Your task to perform on an android device: open app "The Home Depot" (install if not already installed), go to login, and select forgot password Image 0: 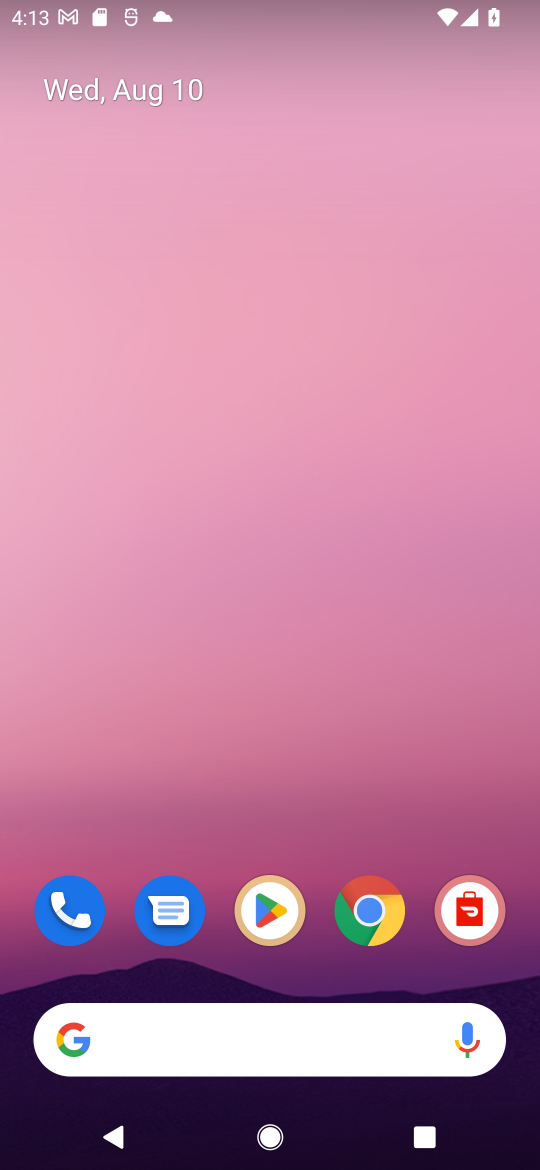
Step 0: click (256, 921)
Your task to perform on an android device: open app "The Home Depot" (install if not already installed), go to login, and select forgot password Image 1: 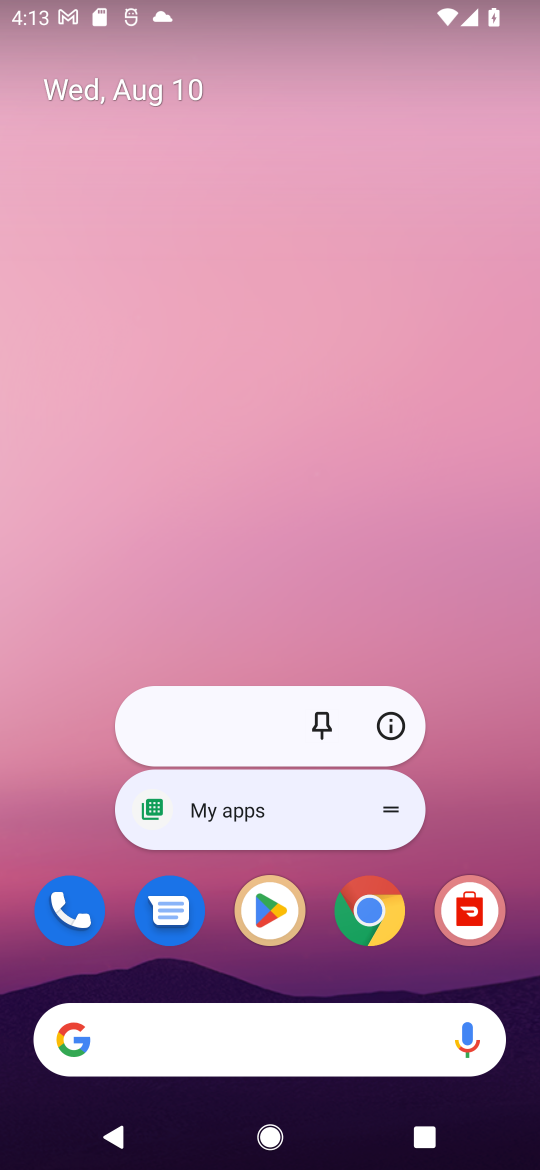
Step 1: click (256, 921)
Your task to perform on an android device: open app "The Home Depot" (install if not already installed), go to login, and select forgot password Image 2: 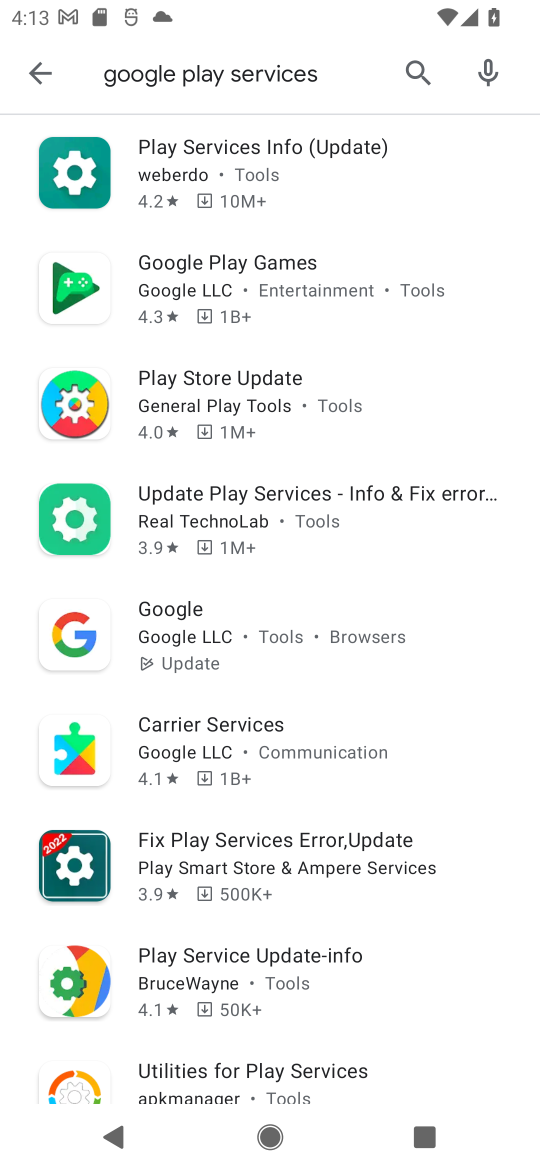
Step 2: click (419, 77)
Your task to perform on an android device: open app "The Home Depot" (install if not already installed), go to login, and select forgot password Image 3: 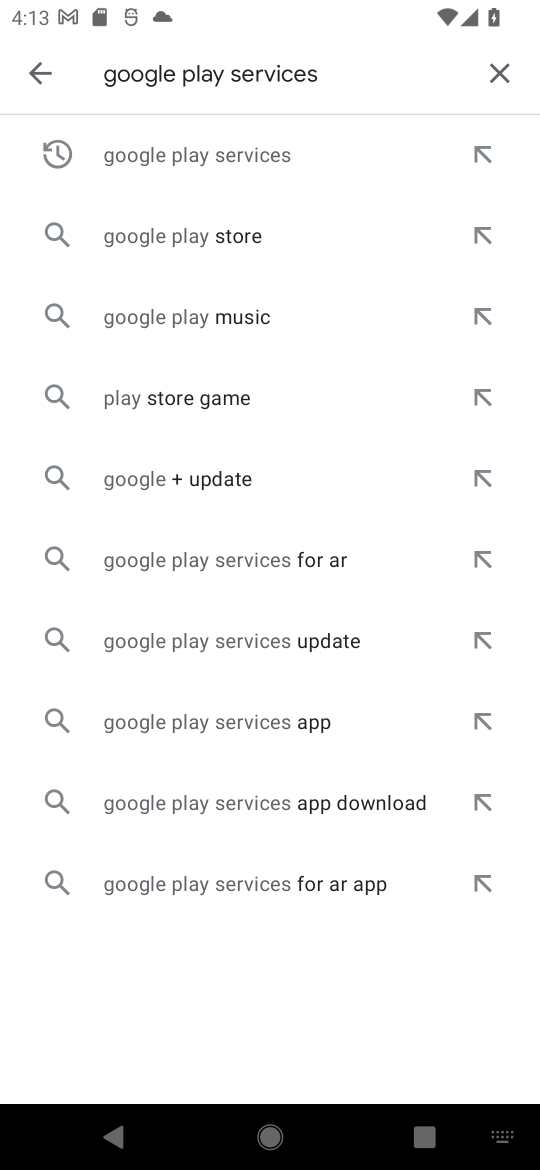
Step 3: click (493, 71)
Your task to perform on an android device: open app "The Home Depot" (install if not already installed), go to login, and select forgot password Image 4: 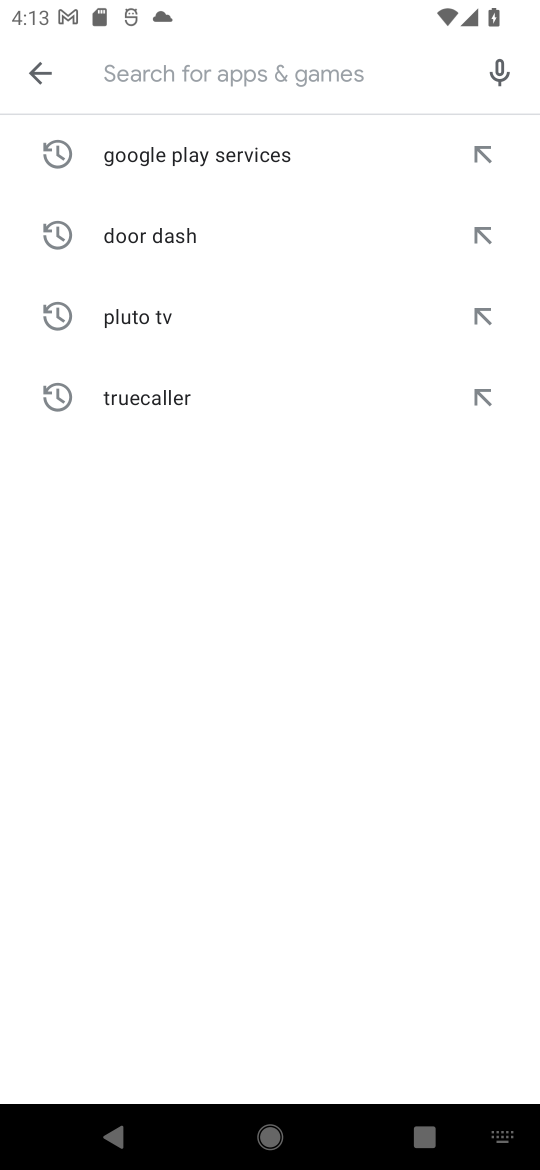
Step 4: click (269, 65)
Your task to perform on an android device: open app "The Home Depot" (install if not already installed), go to login, and select forgot password Image 5: 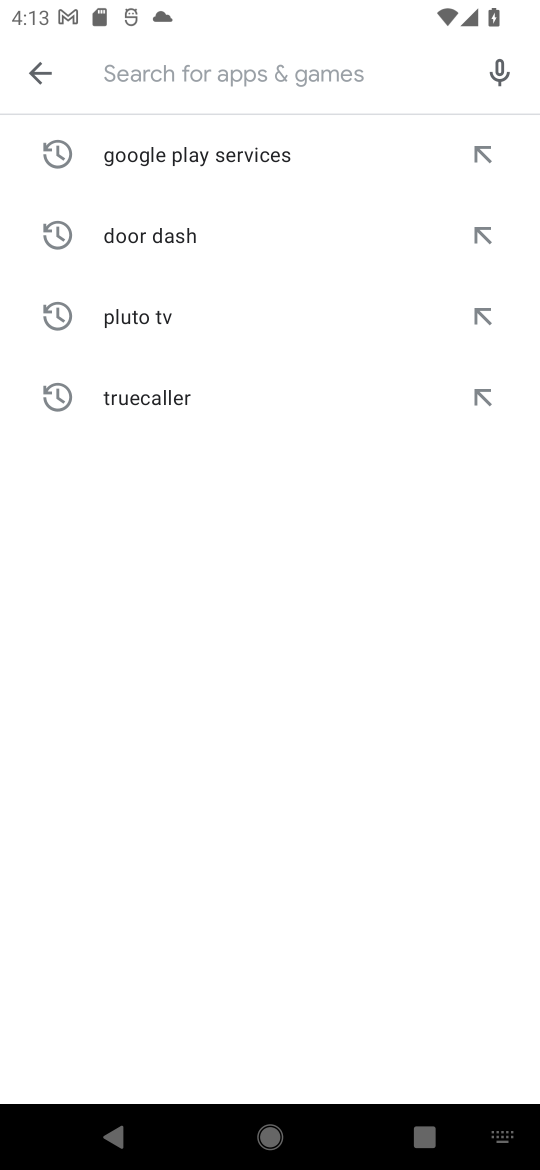
Step 5: type "the home depot"
Your task to perform on an android device: open app "The Home Depot" (install if not already installed), go to login, and select forgot password Image 6: 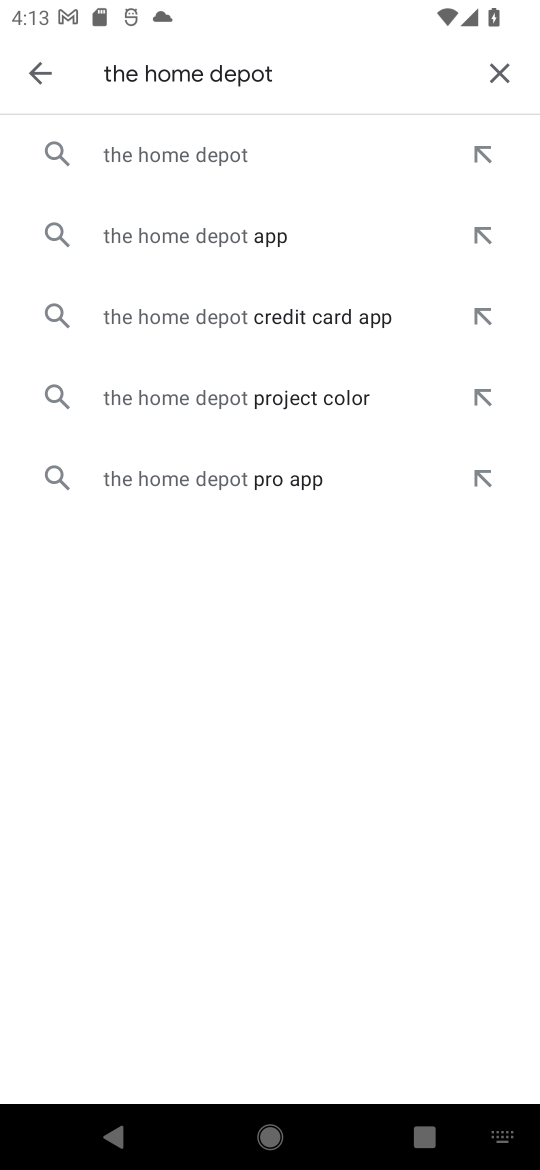
Step 6: click (248, 149)
Your task to perform on an android device: open app "The Home Depot" (install if not already installed), go to login, and select forgot password Image 7: 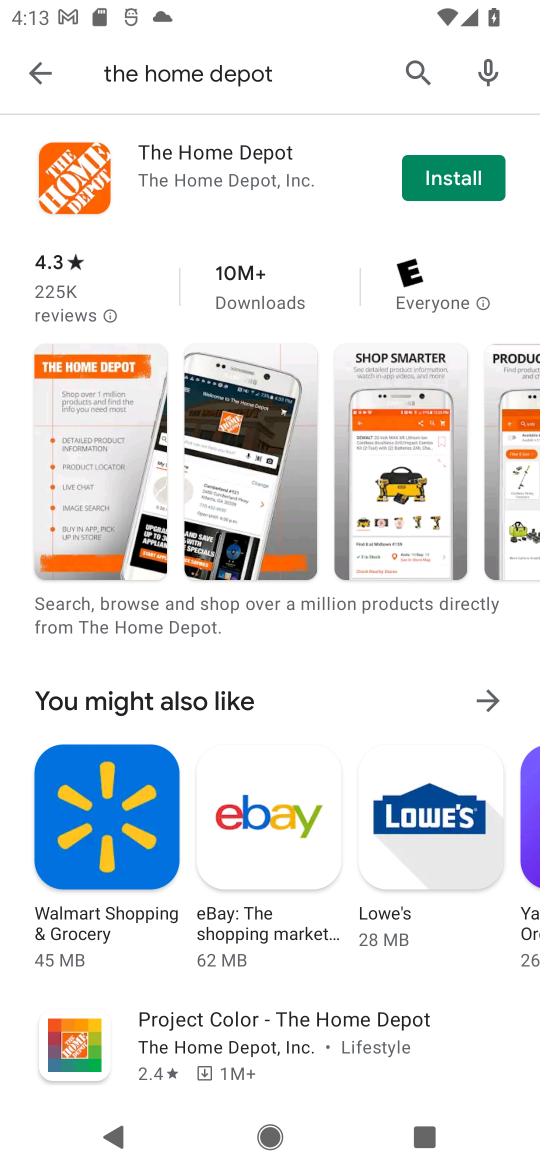
Step 7: click (448, 165)
Your task to perform on an android device: open app "The Home Depot" (install if not already installed), go to login, and select forgot password Image 8: 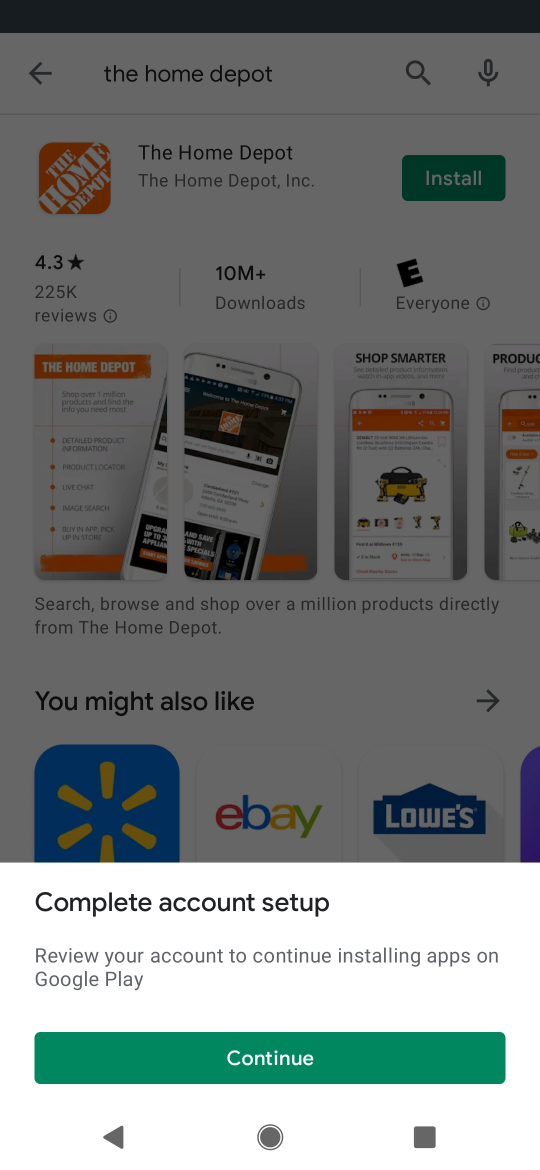
Step 8: click (300, 1037)
Your task to perform on an android device: open app "The Home Depot" (install if not already installed), go to login, and select forgot password Image 9: 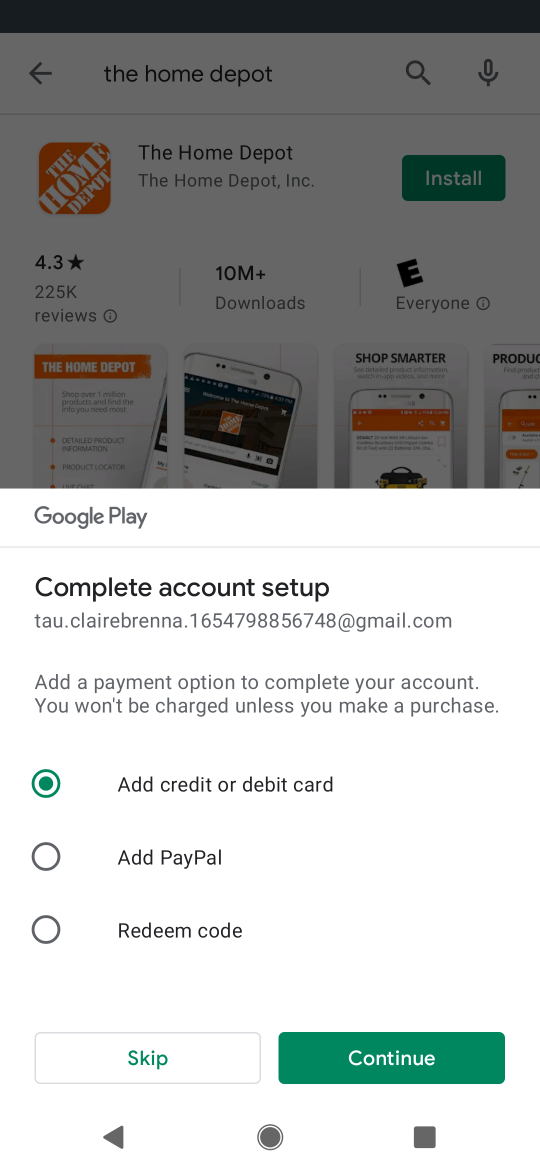
Step 9: click (174, 1050)
Your task to perform on an android device: open app "The Home Depot" (install if not already installed), go to login, and select forgot password Image 10: 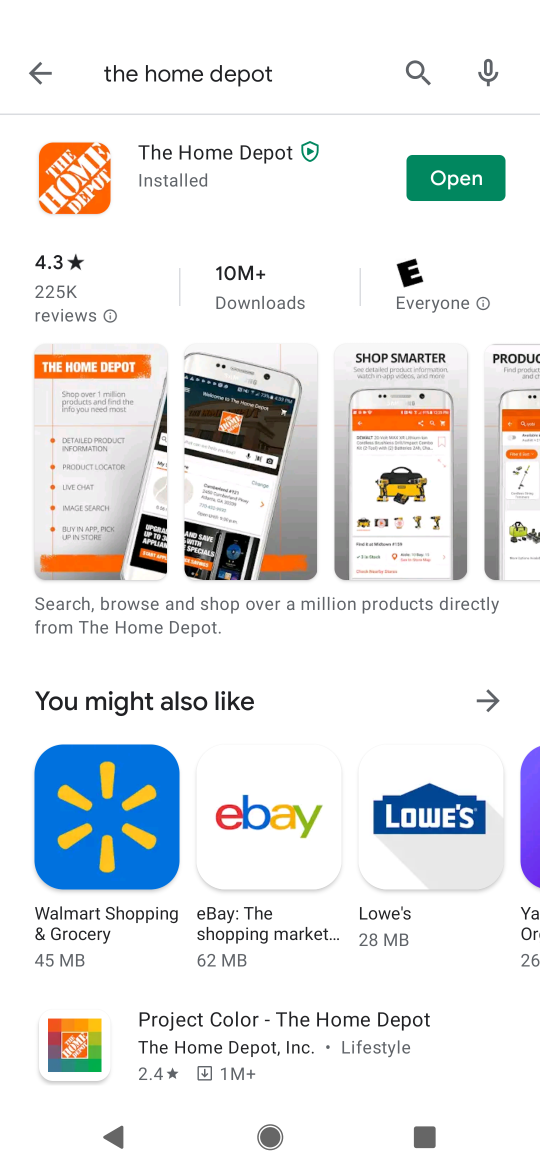
Step 10: click (449, 155)
Your task to perform on an android device: open app "The Home Depot" (install if not already installed), go to login, and select forgot password Image 11: 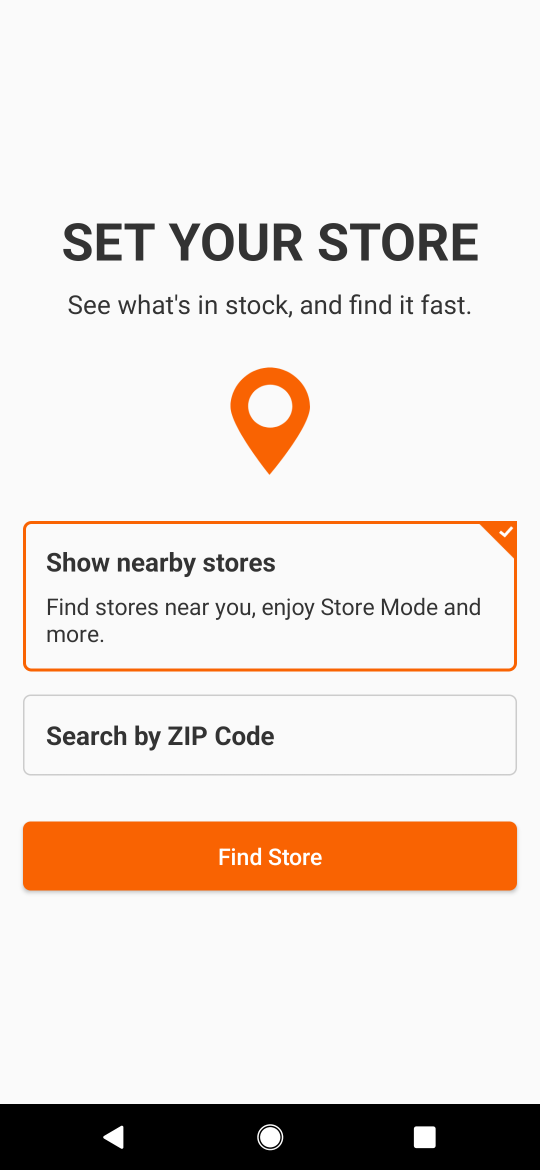
Step 11: click (264, 589)
Your task to perform on an android device: open app "The Home Depot" (install if not already installed), go to login, and select forgot password Image 12: 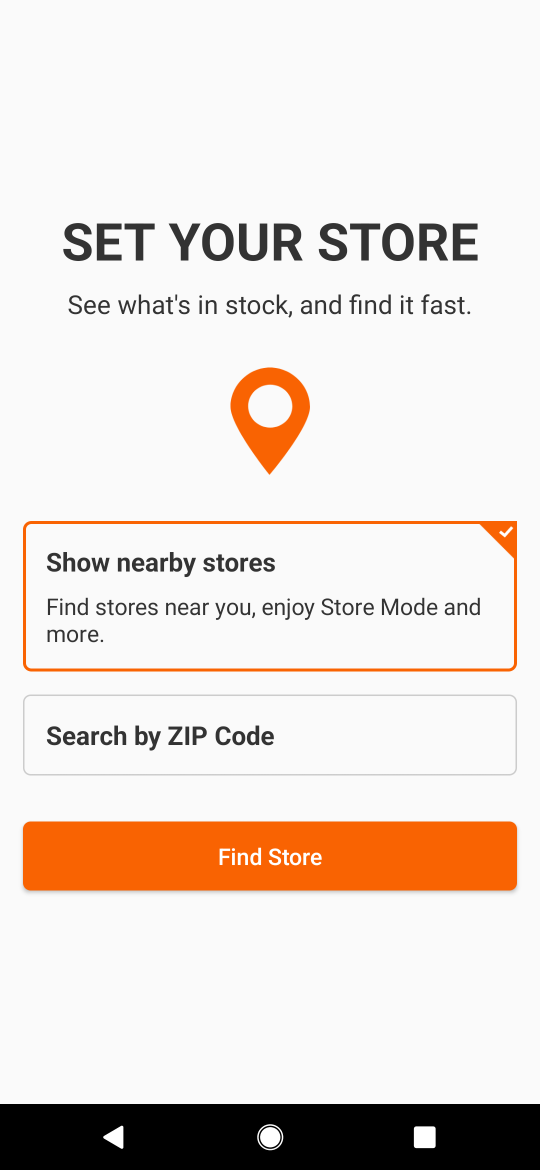
Step 12: click (257, 866)
Your task to perform on an android device: open app "The Home Depot" (install if not already installed), go to login, and select forgot password Image 13: 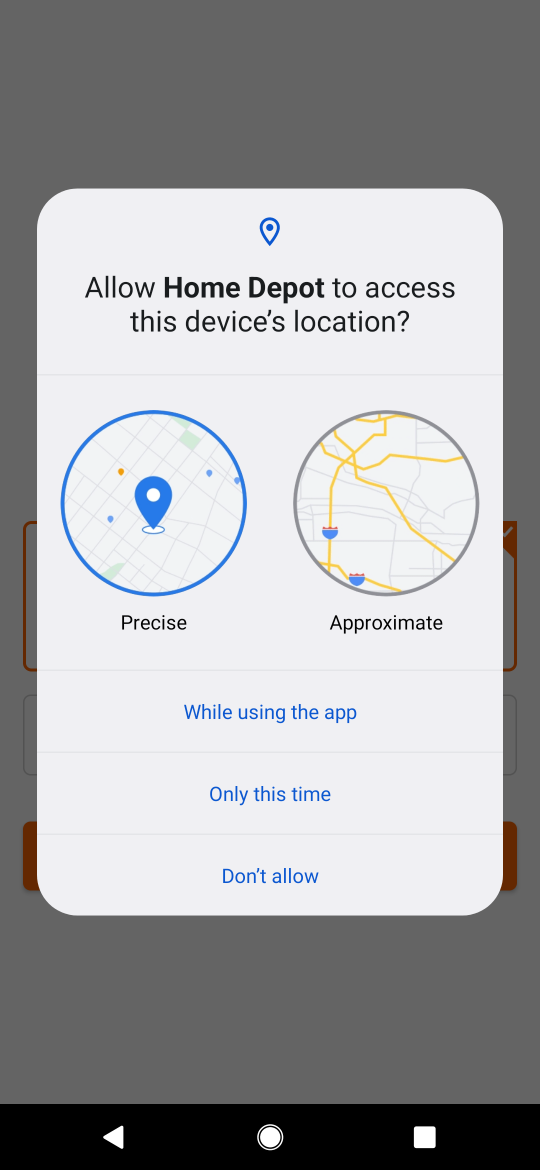
Step 13: click (281, 718)
Your task to perform on an android device: open app "The Home Depot" (install if not already installed), go to login, and select forgot password Image 14: 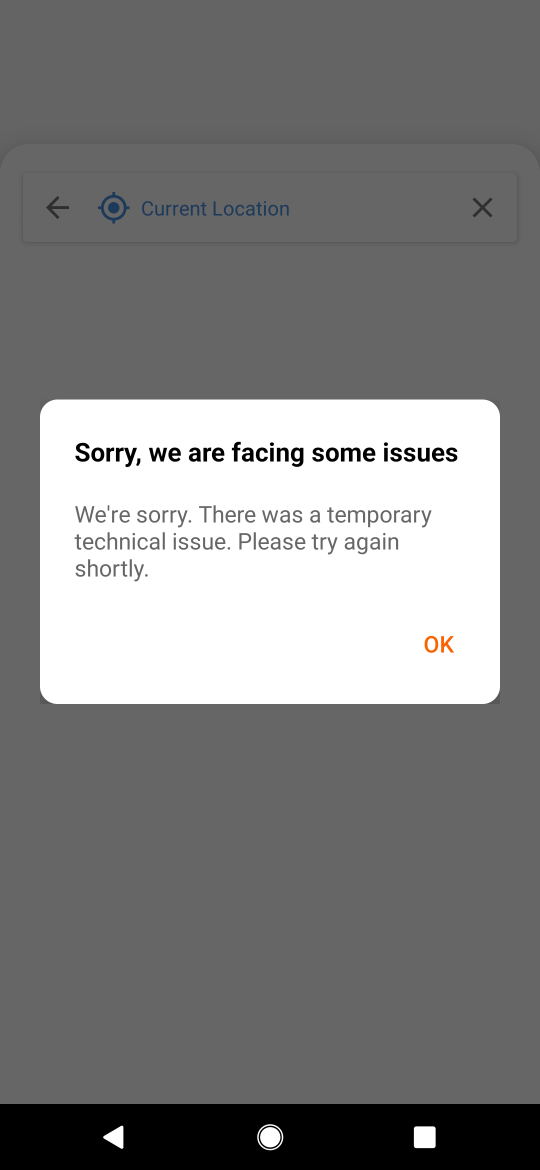
Step 14: click (445, 636)
Your task to perform on an android device: open app "The Home Depot" (install if not already installed), go to login, and select forgot password Image 15: 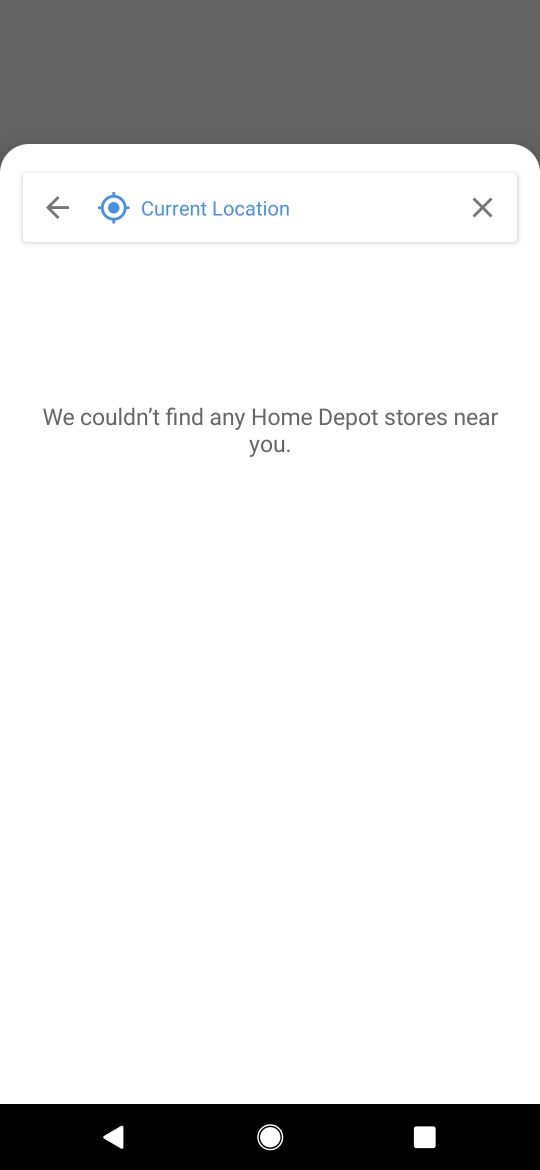
Step 15: task complete